Your task to perform on an android device: Is it going to rain this weekend? Image 0: 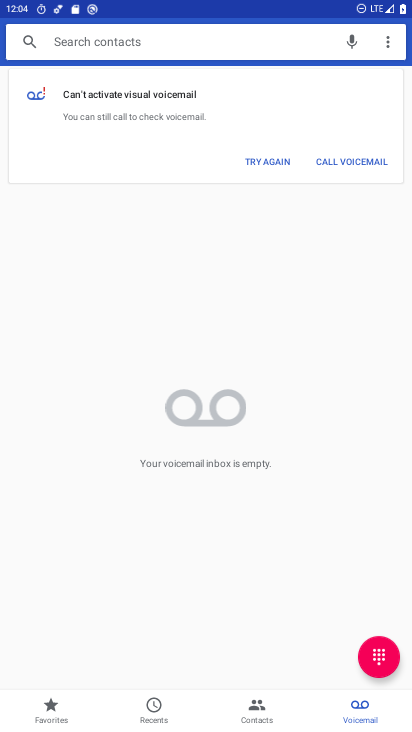
Step 0: press home button
Your task to perform on an android device: Is it going to rain this weekend? Image 1: 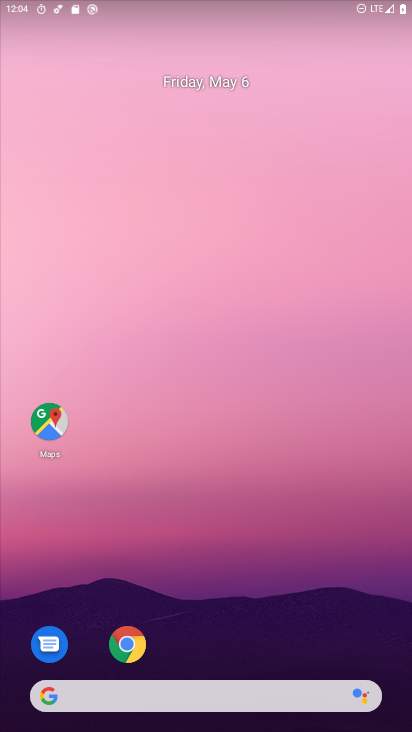
Step 1: drag from (358, 630) to (304, 147)
Your task to perform on an android device: Is it going to rain this weekend? Image 2: 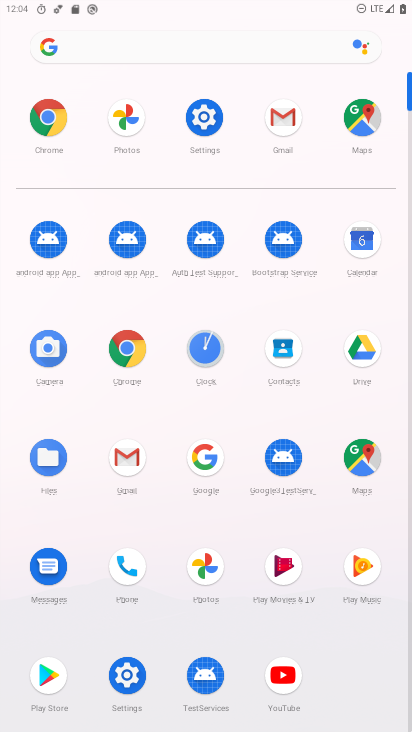
Step 2: click (44, 134)
Your task to perform on an android device: Is it going to rain this weekend? Image 3: 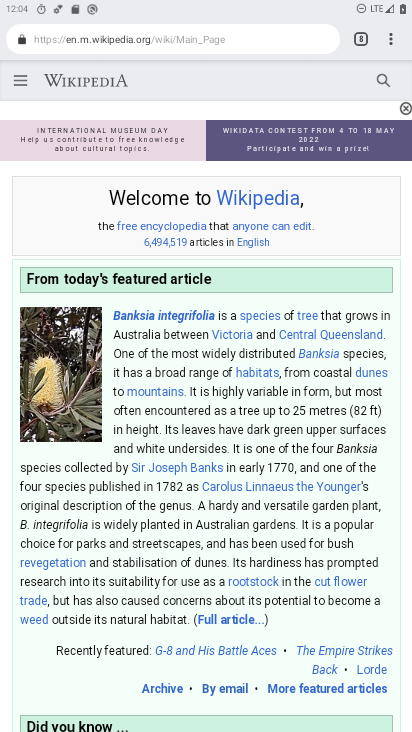
Step 3: click (199, 54)
Your task to perform on an android device: Is it going to rain this weekend? Image 4: 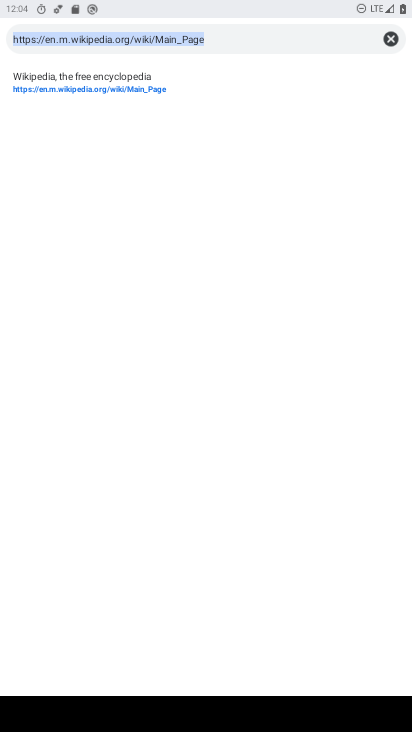
Step 4: click (388, 40)
Your task to perform on an android device: Is it going to rain this weekend? Image 5: 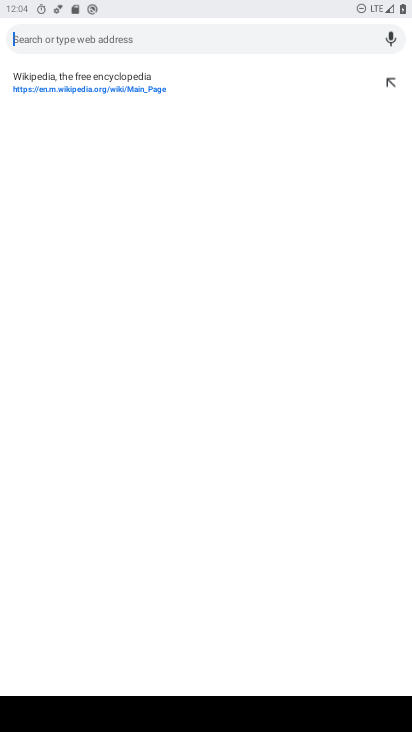
Step 5: type "is it going to rain this weekend"
Your task to perform on an android device: Is it going to rain this weekend? Image 6: 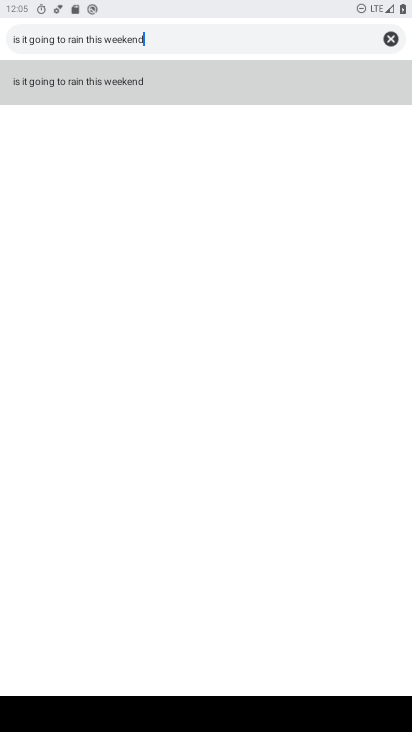
Step 6: click (154, 80)
Your task to perform on an android device: Is it going to rain this weekend? Image 7: 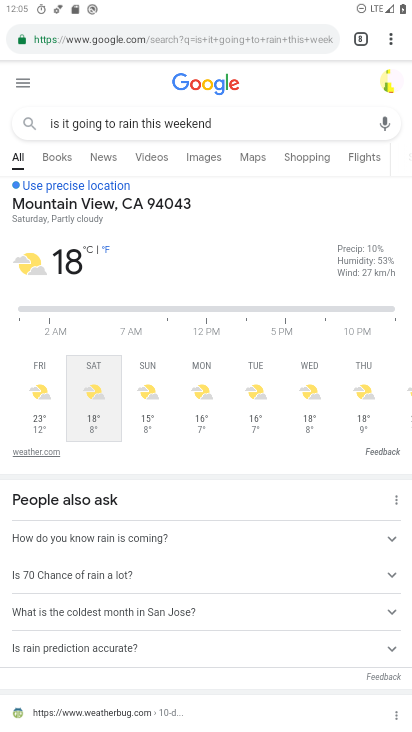
Step 7: task complete